Your task to perform on an android device: turn off improve location accuracy Image 0: 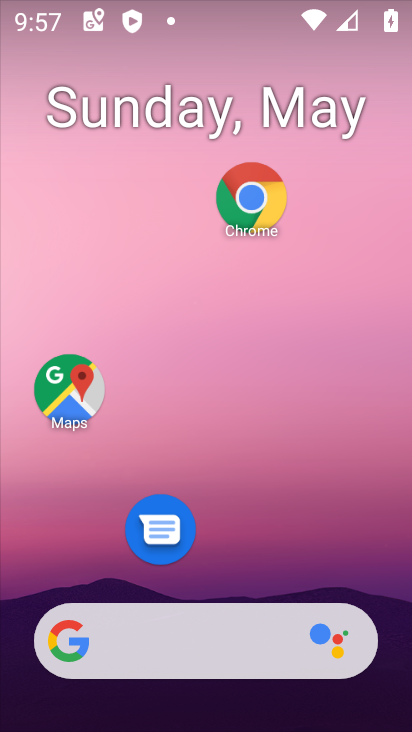
Step 0: drag from (307, 539) to (267, 0)
Your task to perform on an android device: turn off improve location accuracy Image 1: 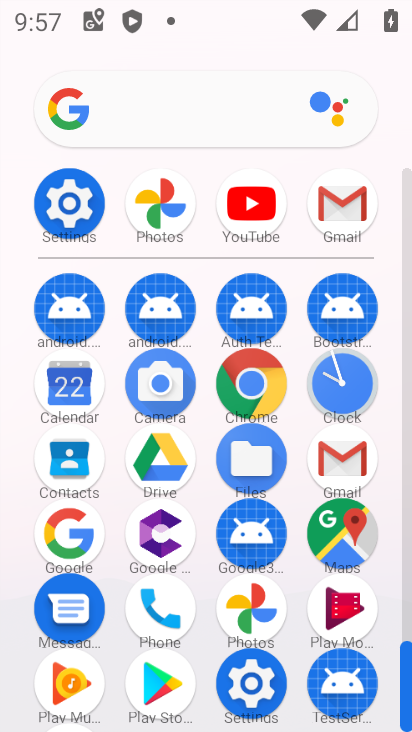
Step 1: click (58, 209)
Your task to perform on an android device: turn off improve location accuracy Image 2: 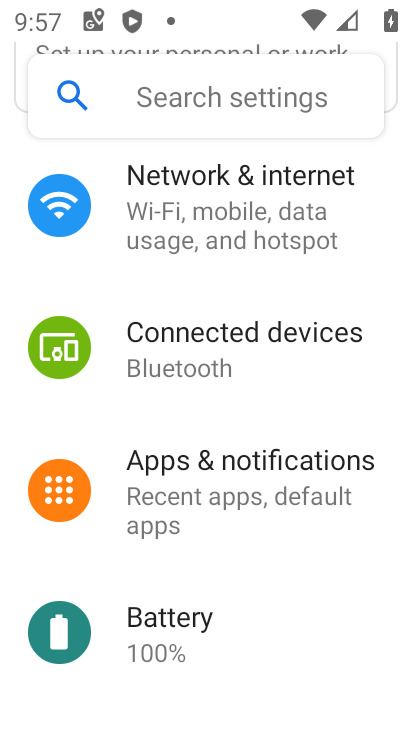
Step 2: drag from (220, 668) to (85, 337)
Your task to perform on an android device: turn off improve location accuracy Image 3: 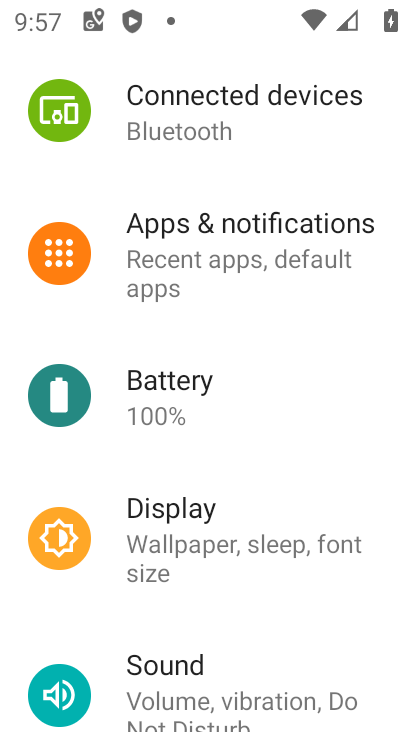
Step 3: drag from (178, 608) to (216, 403)
Your task to perform on an android device: turn off improve location accuracy Image 4: 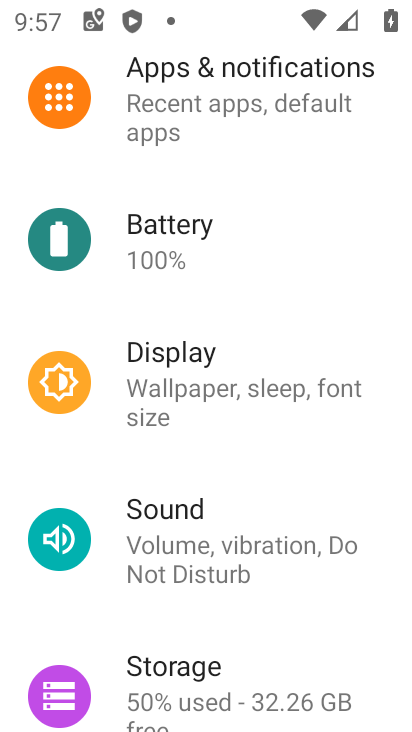
Step 4: drag from (245, 529) to (241, 302)
Your task to perform on an android device: turn off improve location accuracy Image 5: 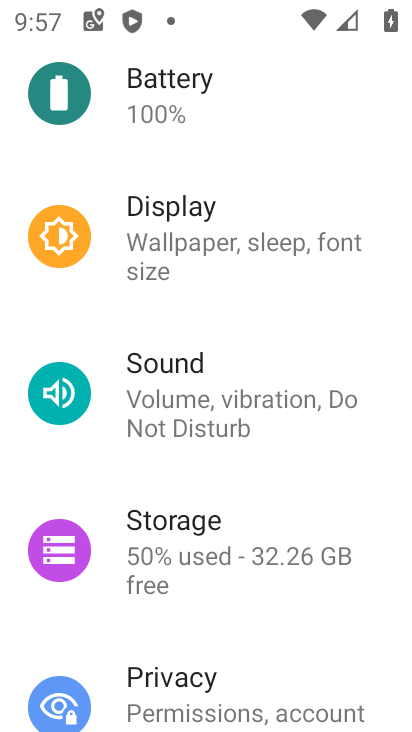
Step 5: drag from (252, 676) to (259, 418)
Your task to perform on an android device: turn off improve location accuracy Image 6: 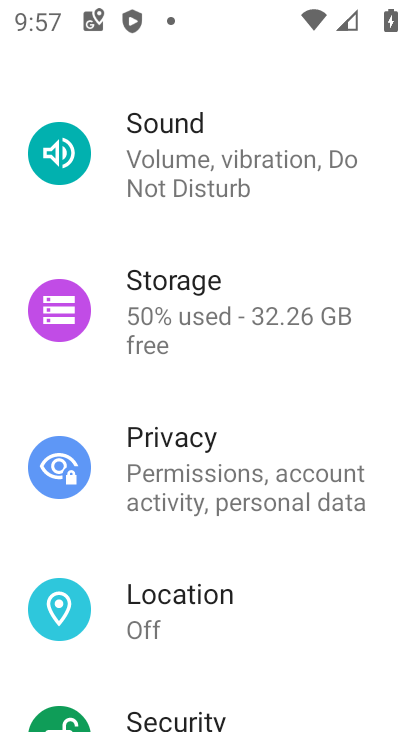
Step 6: click (246, 610)
Your task to perform on an android device: turn off improve location accuracy Image 7: 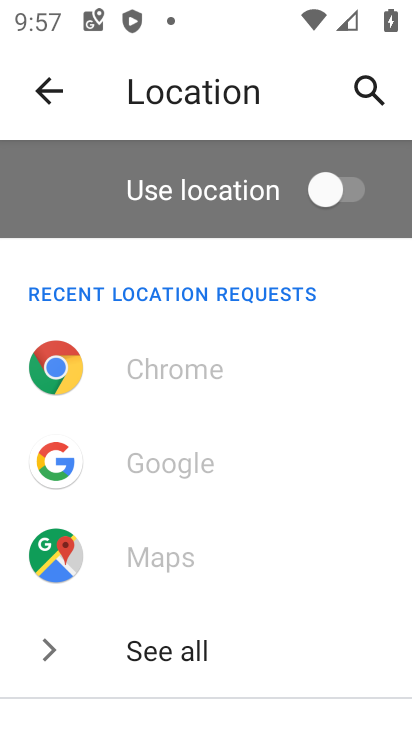
Step 7: drag from (205, 681) to (271, 341)
Your task to perform on an android device: turn off improve location accuracy Image 8: 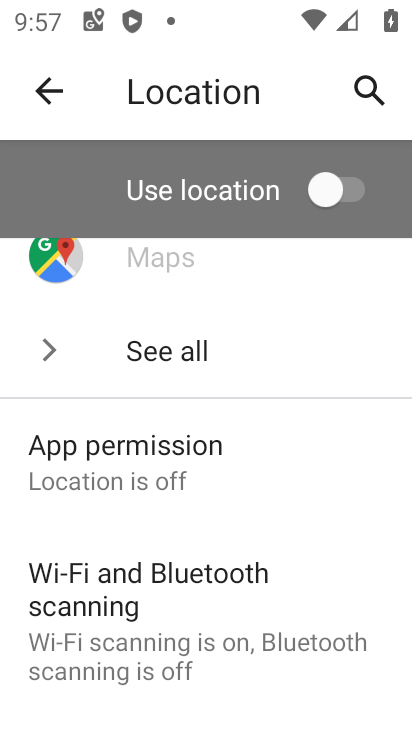
Step 8: drag from (209, 435) to (242, 351)
Your task to perform on an android device: turn off improve location accuracy Image 9: 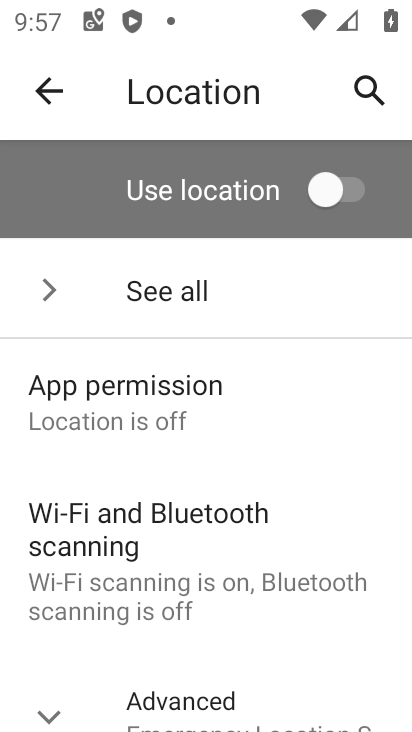
Step 9: drag from (166, 675) to (212, 388)
Your task to perform on an android device: turn off improve location accuracy Image 10: 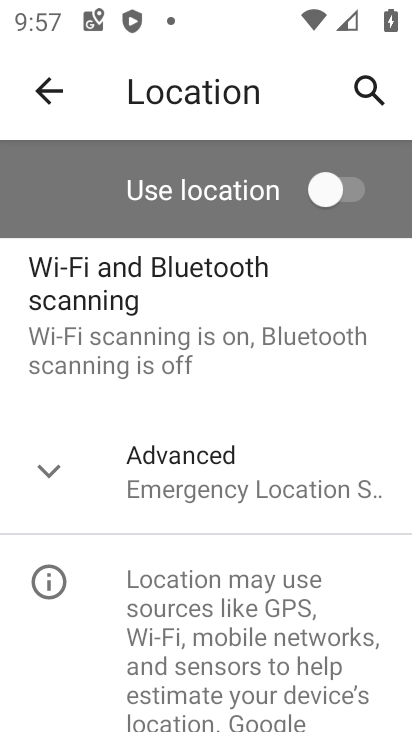
Step 10: click (197, 492)
Your task to perform on an android device: turn off improve location accuracy Image 11: 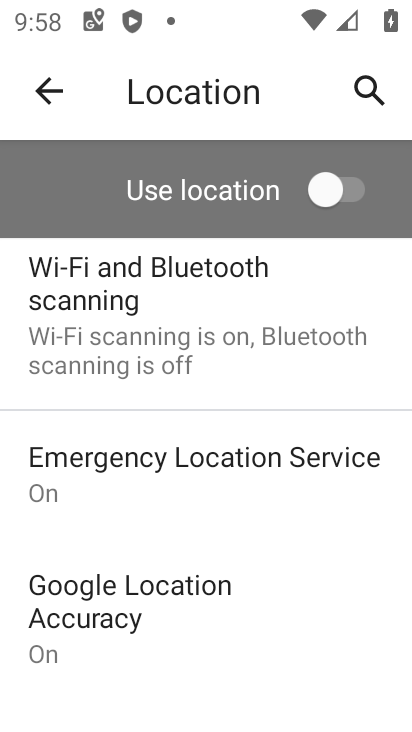
Step 11: click (125, 615)
Your task to perform on an android device: turn off improve location accuracy Image 12: 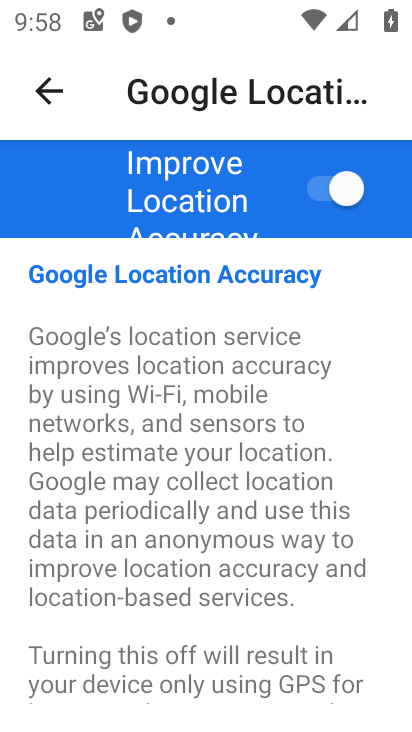
Step 12: click (322, 188)
Your task to perform on an android device: turn off improve location accuracy Image 13: 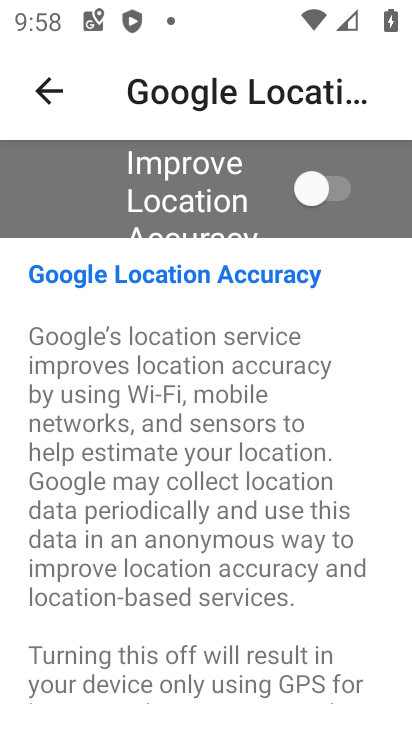
Step 13: task complete